Your task to perform on an android device: Turn on the flashlight Image 0: 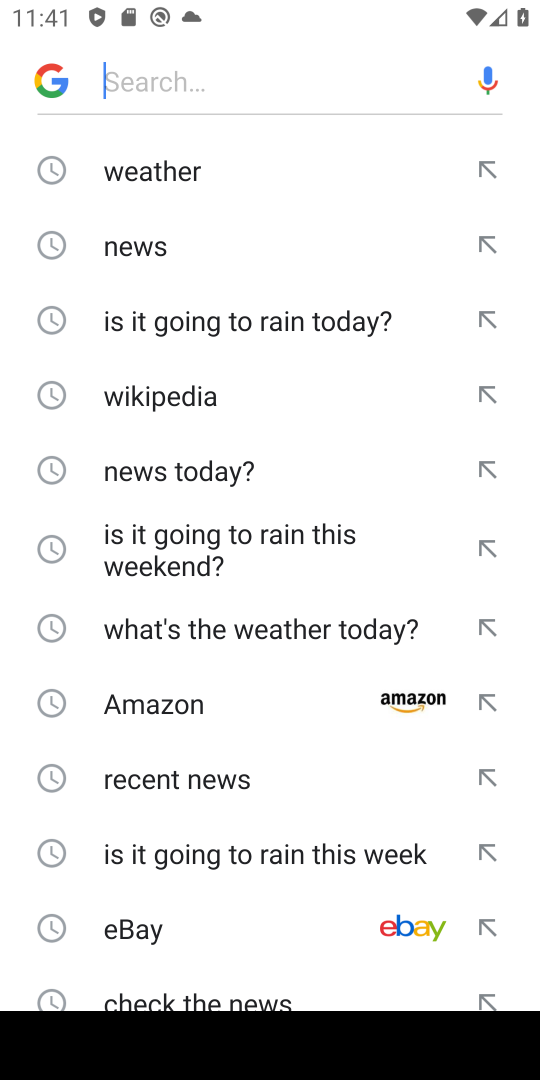
Step 0: press home button
Your task to perform on an android device: Turn on the flashlight Image 1: 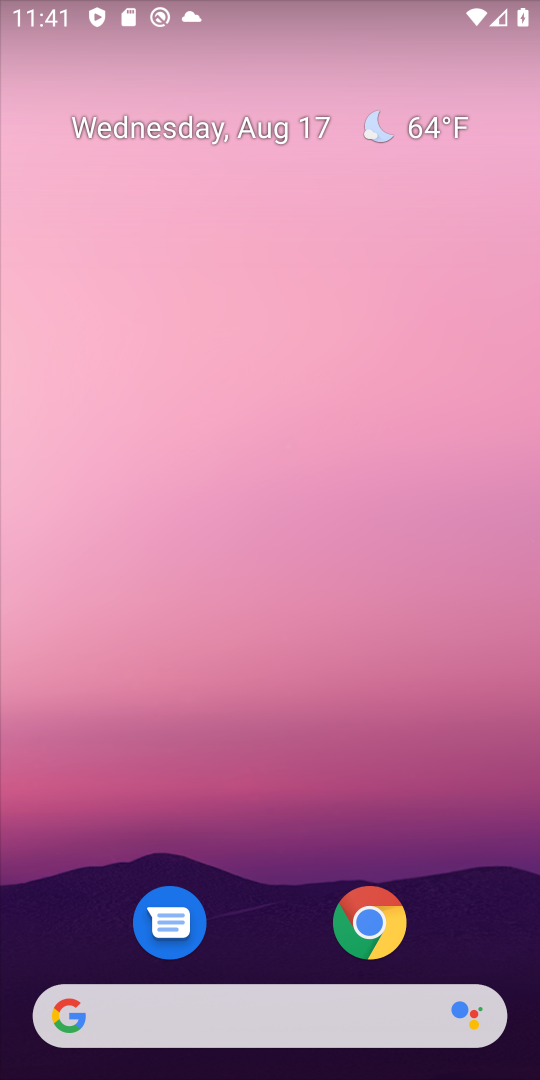
Step 1: drag from (262, 752) to (242, 132)
Your task to perform on an android device: Turn on the flashlight Image 2: 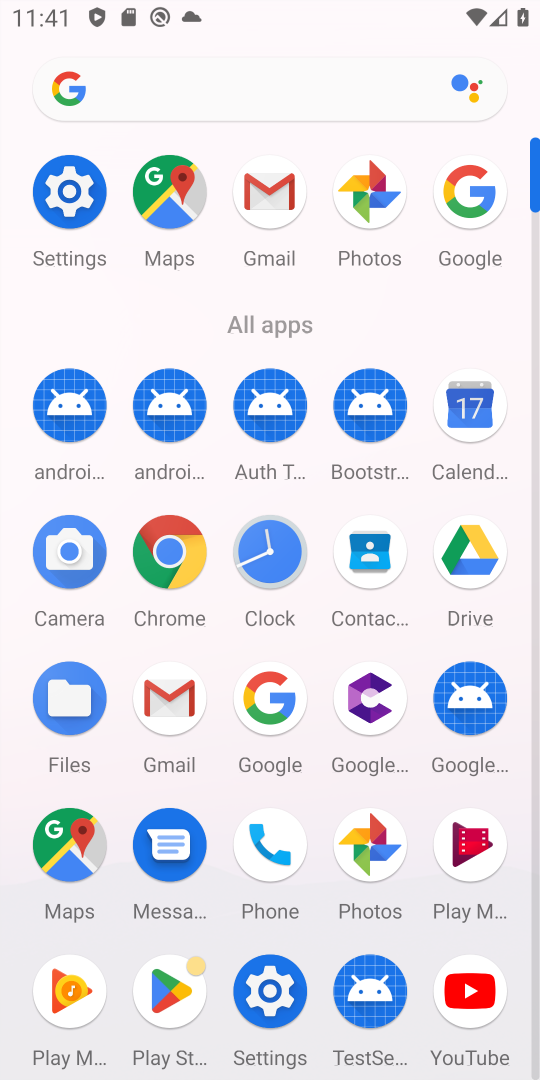
Step 2: click (76, 192)
Your task to perform on an android device: Turn on the flashlight Image 3: 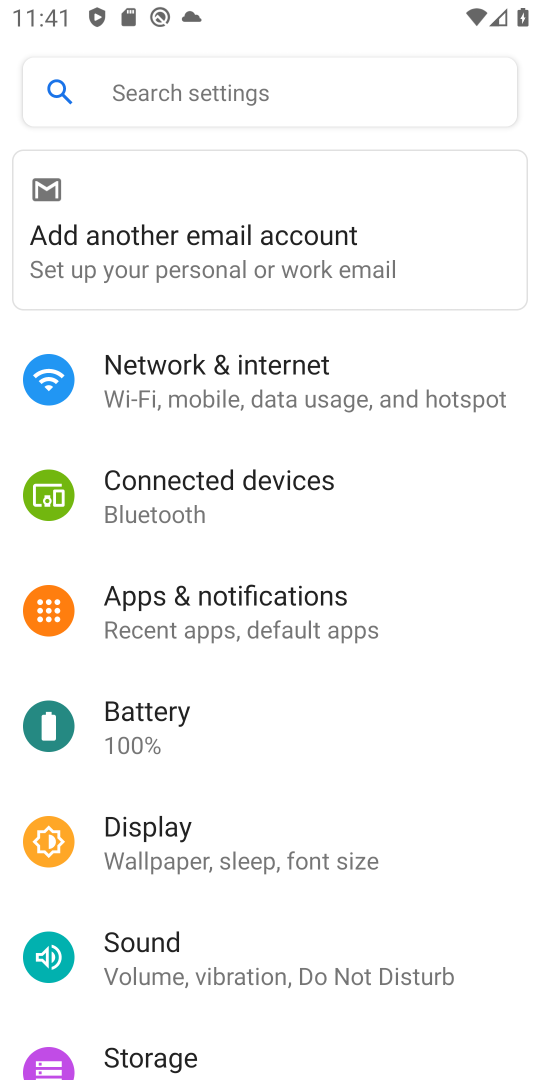
Step 3: click (149, 825)
Your task to perform on an android device: Turn on the flashlight Image 4: 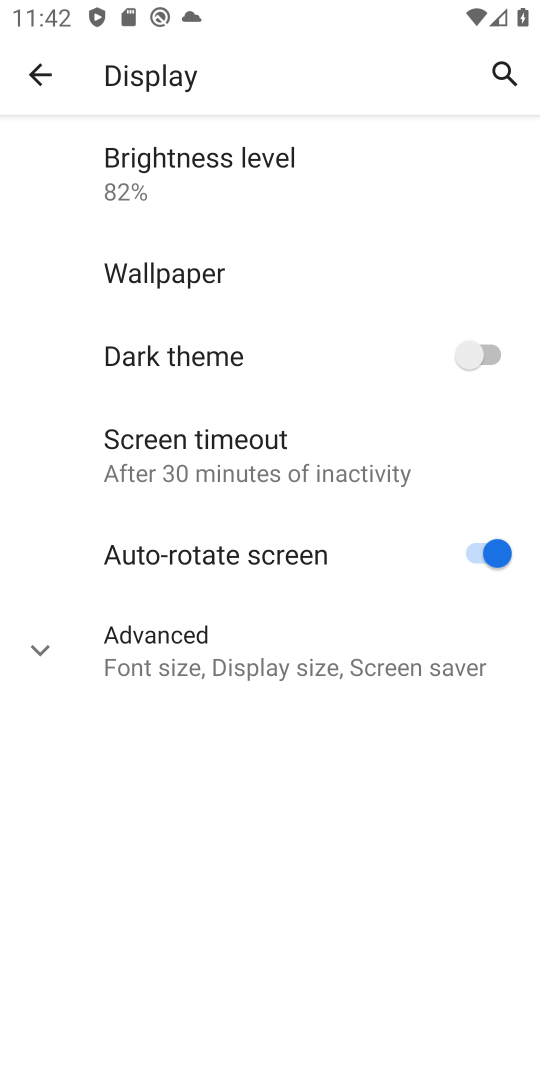
Step 4: task complete